Your task to perform on an android device: Open Youtube and go to "Your channel" Image 0: 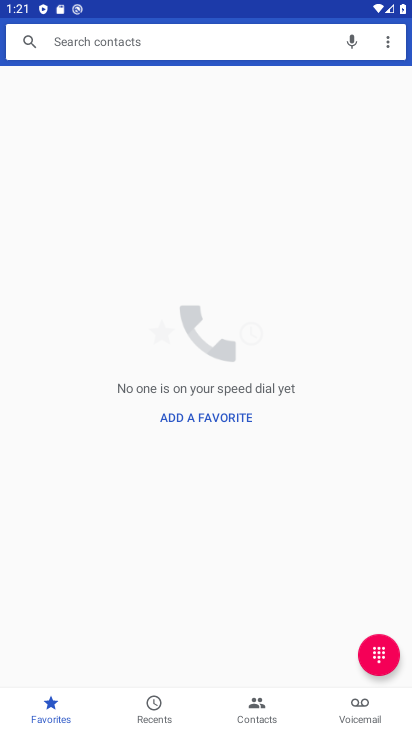
Step 0: press home button
Your task to perform on an android device: Open Youtube and go to "Your channel" Image 1: 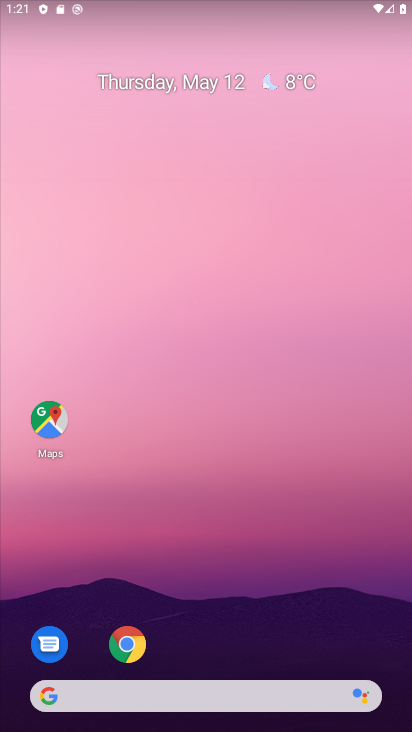
Step 1: drag from (209, 709) to (189, 130)
Your task to perform on an android device: Open Youtube and go to "Your channel" Image 2: 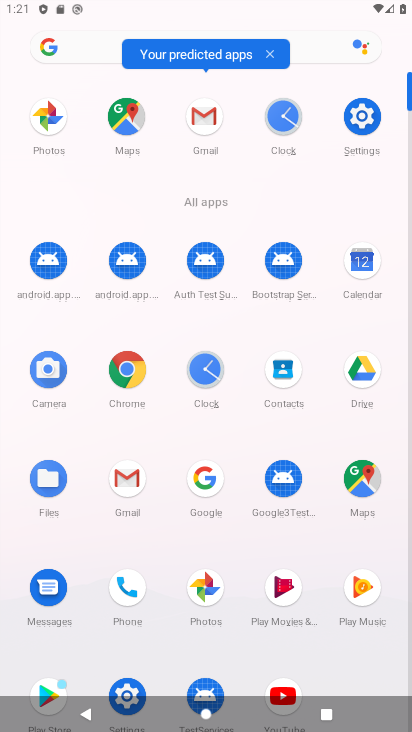
Step 2: click (281, 683)
Your task to perform on an android device: Open Youtube and go to "Your channel" Image 3: 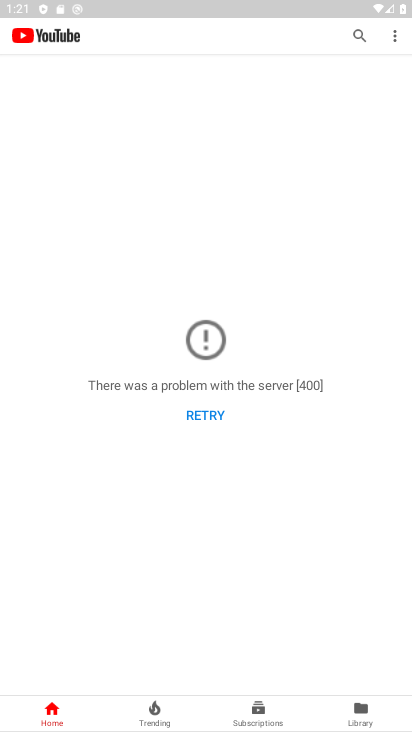
Step 3: click (359, 705)
Your task to perform on an android device: Open Youtube and go to "Your channel" Image 4: 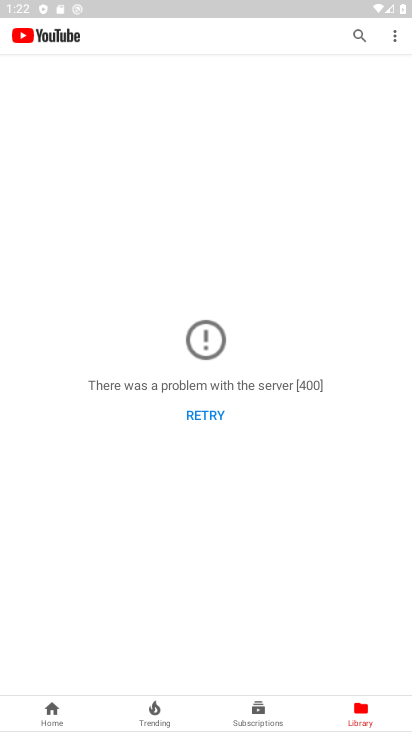
Step 4: task complete